Your task to perform on an android device: What's the weather? Image 0: 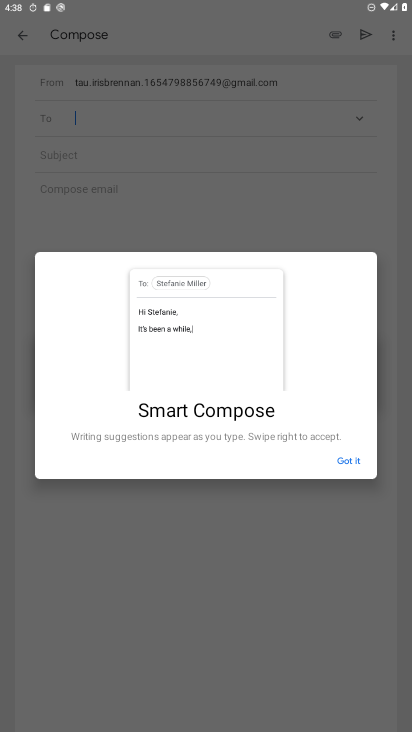
Step 0: press home button
Your task to perform on an android device: What's the weather? Image 1: 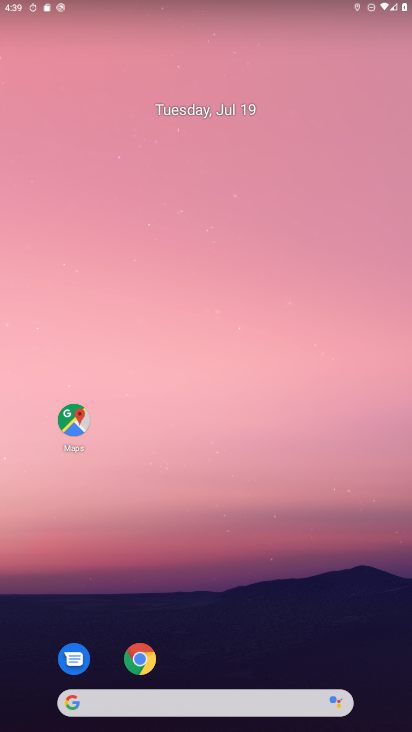
Step 1: drag from (238, 582) to (354, 19)
Your task to perform on an android device: What's the weather? Image 2: 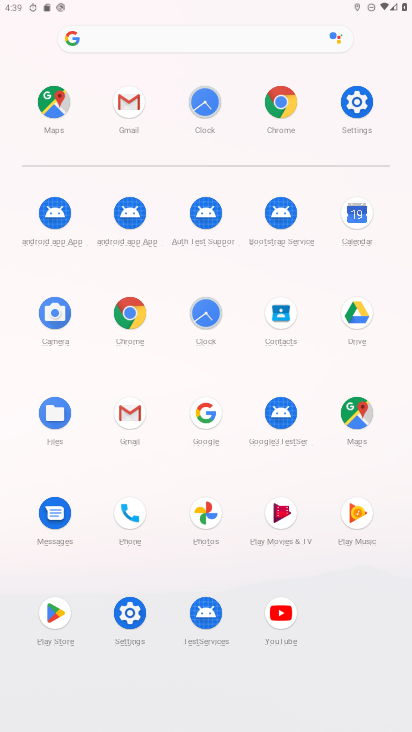
Step 2: click (214, 418)
Your task to perform on an android device: What's the weather? Image 3: 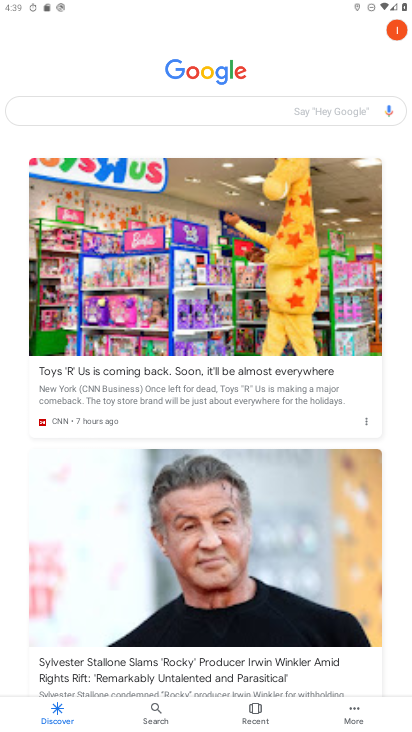
Step 3: click (263, 121)
Your task to perform on an android device: What's the weather? Image 4: 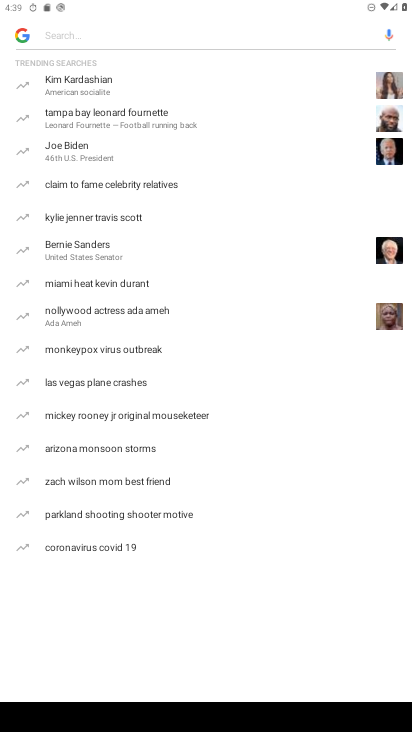
Step 4: type "weather"
Your task to perform on an android device: What's the weather? Image 5: 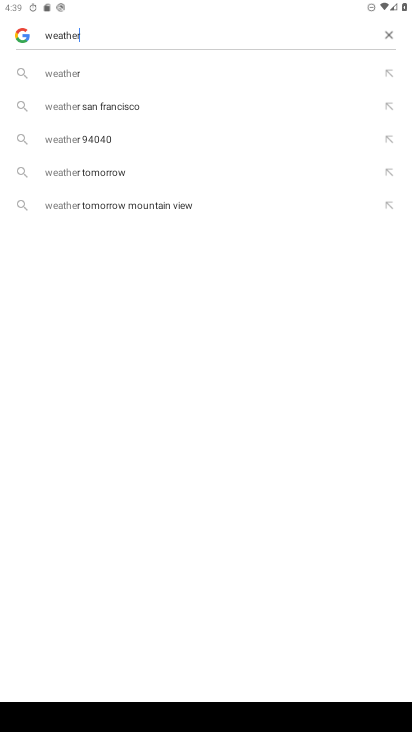
Step 5: press enter
Your task to perform on an android device: What's the weather? Image 6: 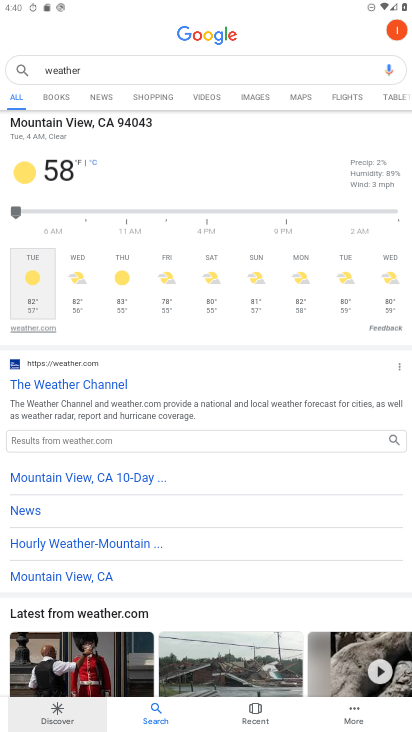
Step 6: task complete